Your task to perform on an android device: Open Chrome and go to settings Image 0: 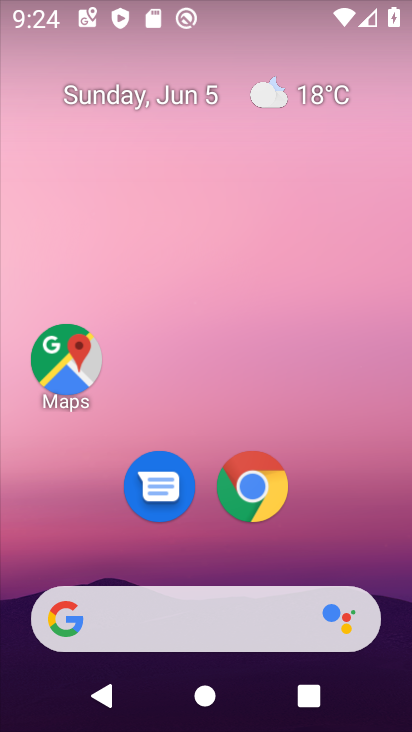
Step 0: drag from (370, 510) to (354, 203)
Your task to perform on an android device: Open Chrome and go to settings Image 1: 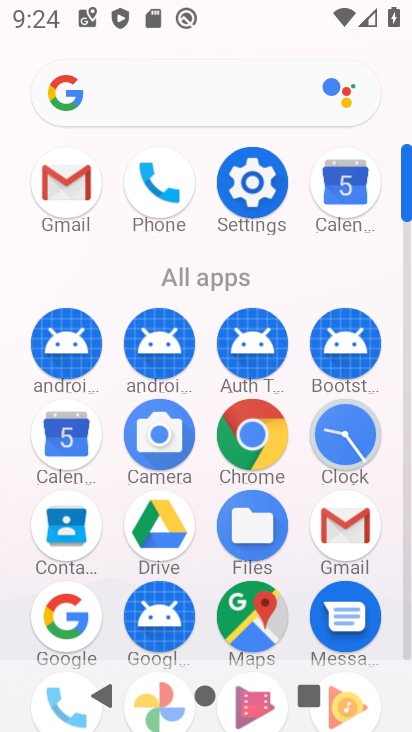
Step 1: click (263, 447)
Your task to perform on an android device: Open Chrome and go to settings Image 2: 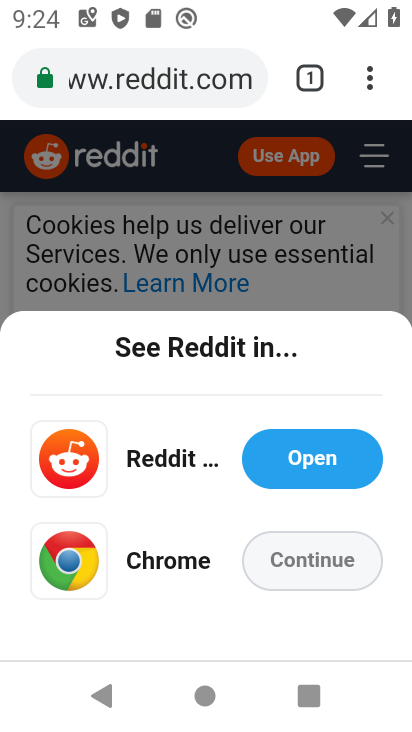
Step 2: click (234, 79)
Your task to perform on an android device: Open Chrome and go to settings Image 3: 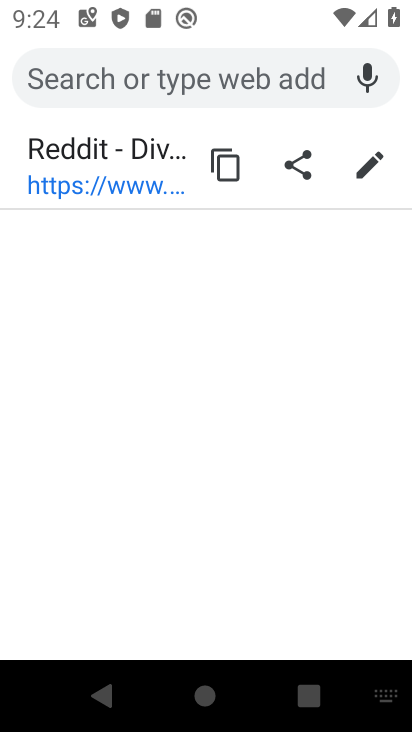
Step 3: click (106, 700)
Your task to perform on an android device: Open Chrome and go to settings Image 4: 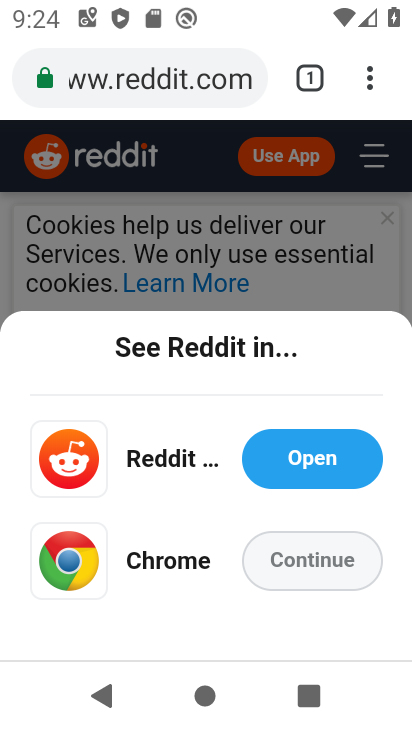
Step 4: task complete